Your task to perform on an android device: Play the last video I watched on Youtube Image 0: 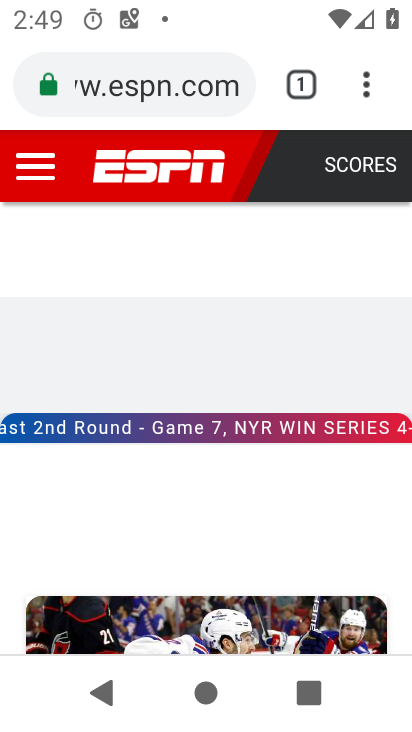
Step 0: press home button
Your task to perform on an android device: Play the last video I watched on Youtube Image 1: 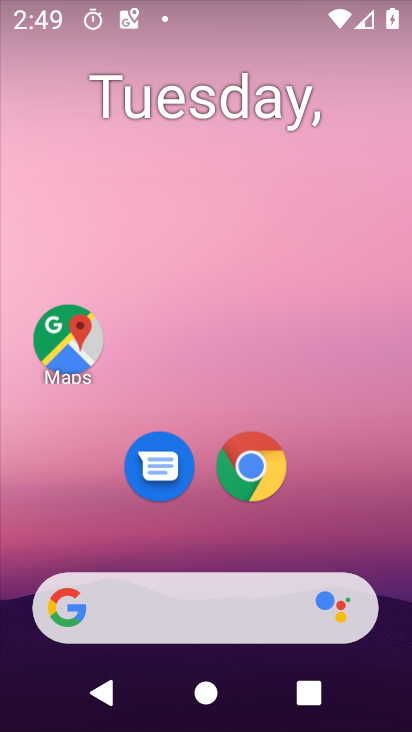
Step 1: drag from (312, 495) to (346, 156)
Your task to perform on an android device: Play the last video I watched on Youtube Image 2: 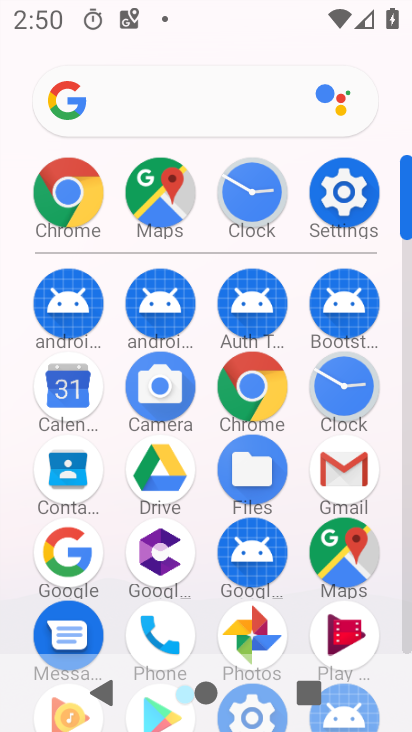
Step 2: drag from (387, 653) to (388, 344)
Your task to perform on an android device: Play the last video I watched on Youtube Image 3: 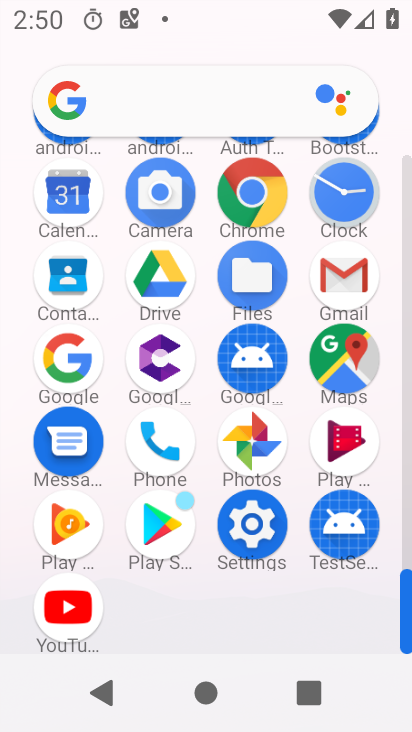
Step 3: click (71, 623)
Your task to perform on an android device: Play the last video I watched on Youtube Image 4: 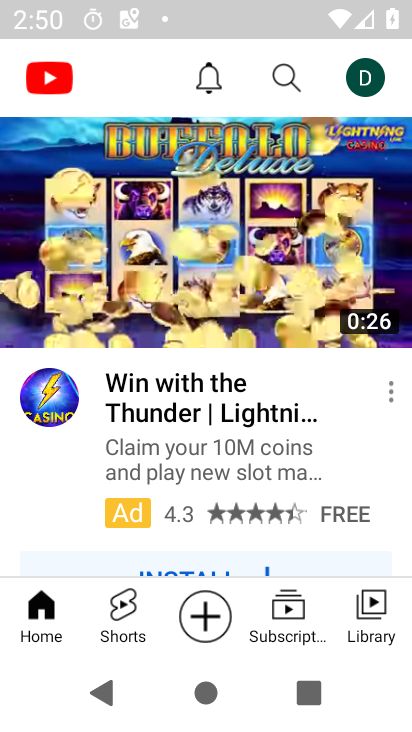
Step 4: click (363, 611)
Your task to perform on an android device: Play the last video I watched on Youtube Image 5: 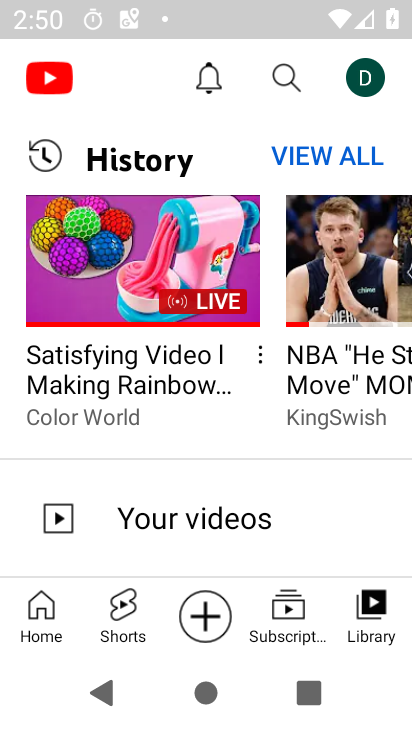
Step 5: click (112, 245)
Your task to perform on an android device: Play the last video I watched on Youtube Image 6: 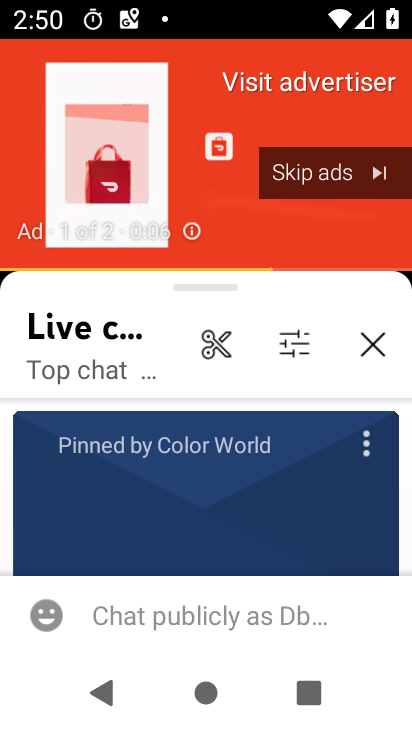
Step 6: task complete